Your task to perform on an android device: turn on data saver in the chrome app Image 0: 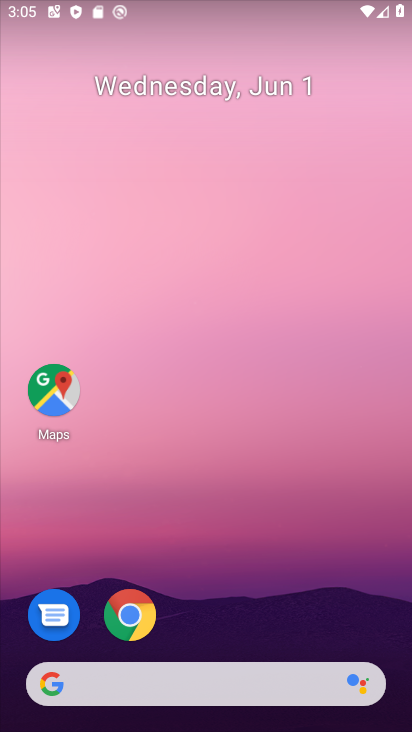
Step 0: press home button
Your task to perform on an android device: turn on data saver in the chrome app Image 1: 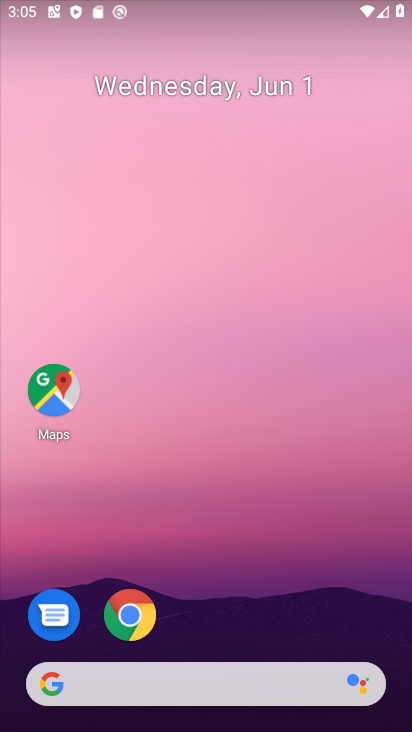
Step 1: click (127, 611)
Your task to perform on an android device: turn on data saver in the chrome app Image 2: 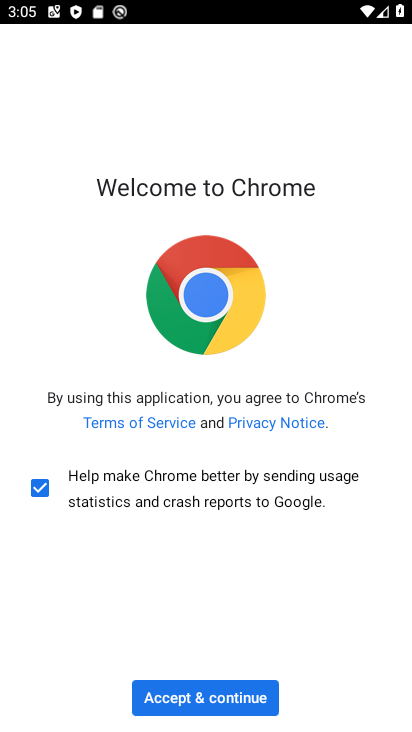
Step 2: click (199, 693)
Your task to perform on an android device: turn on data saver in the chrome app Image 3: 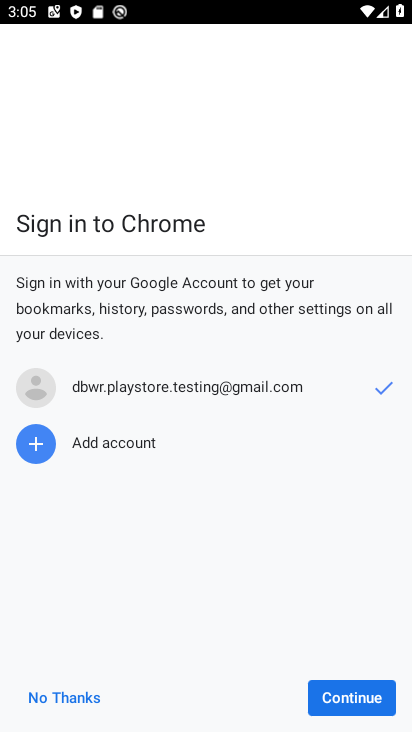
Step 3: click (350, 695)
Your task to perform on an android device: turn on data saver in the chrome app Image 4: 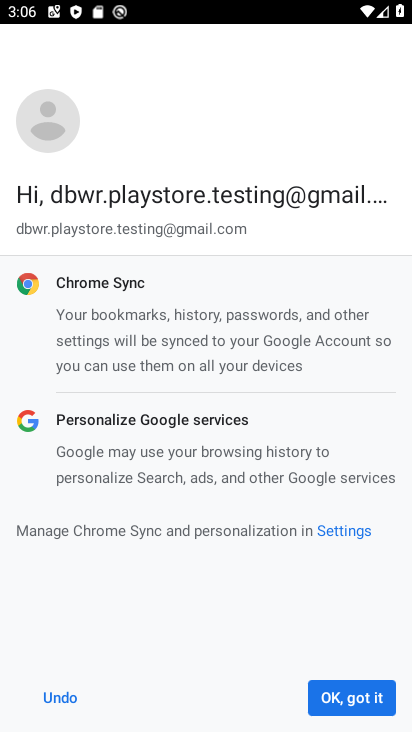
Step 4: click (337, 702)
Your task to perform on an android device: turn on data saver in the chrome app Image 5: 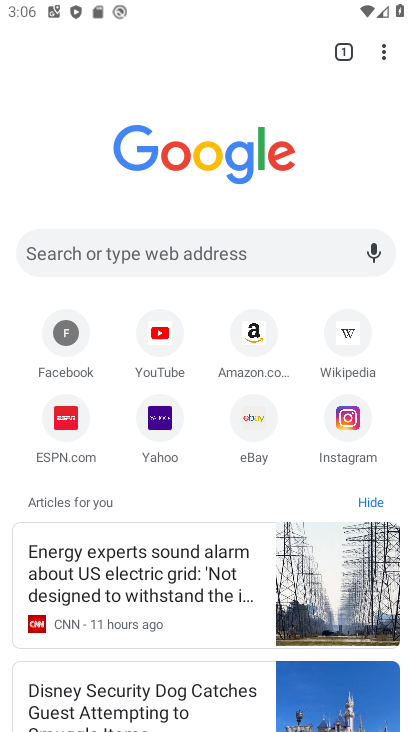
Step 5: click (379, 44)
Your task to perform on an android device: turn on data saver in the chrome app Image 6: 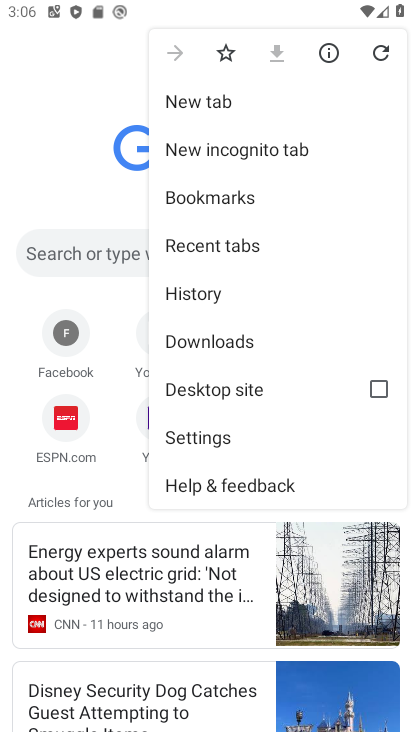
Step 6: click (246, 436)
Your task to perform on an android device: turn on data saver in the chrome app Image 7: 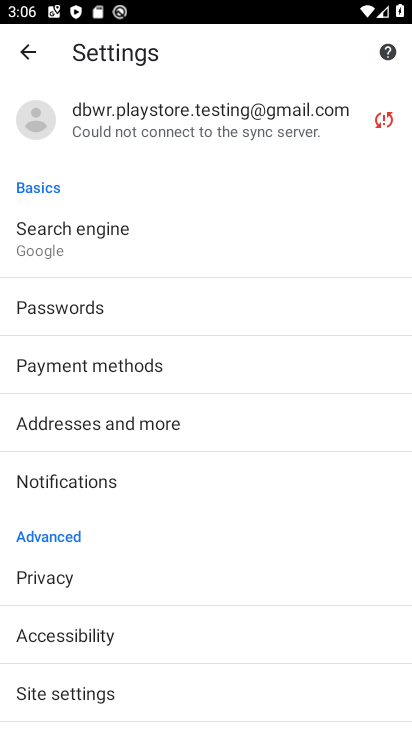
Step 7: drag from (180, 619) to (215, 119)
Your task to perform on an android device: turn on data saver in the chrome app Image 8: 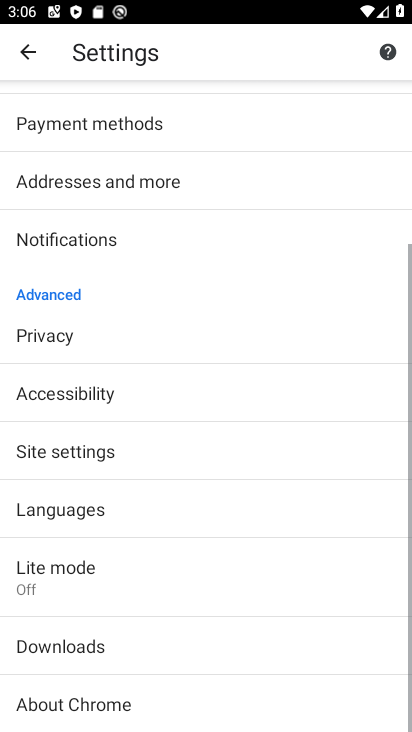
Step 8: click (113, 571)
Your task to perform on an android device: turn on data saver in the chrome app Image 9: 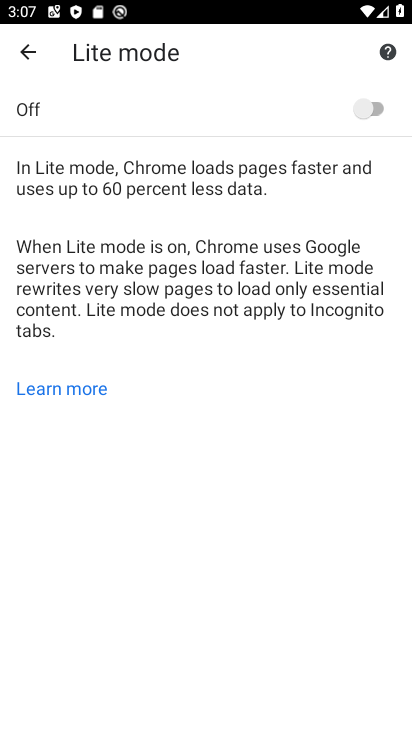
Step 9: click (376, 102)
Your task to perform on an android device: turn on data saver in the chrome app Image 10: 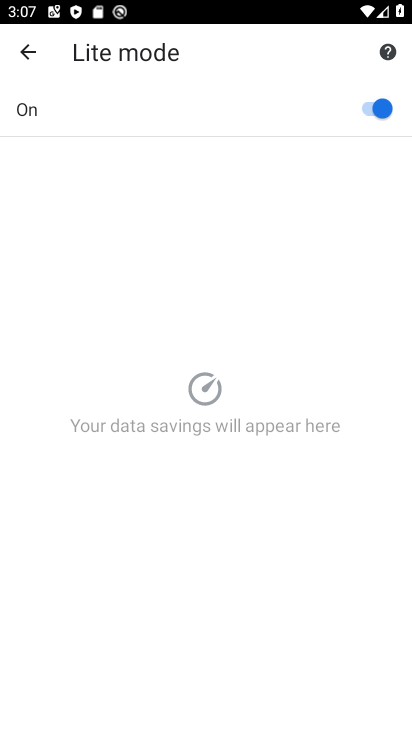
Step 10: task complete